Your task to perform on an android device: stop showing notifications on the lock screen Image 0: 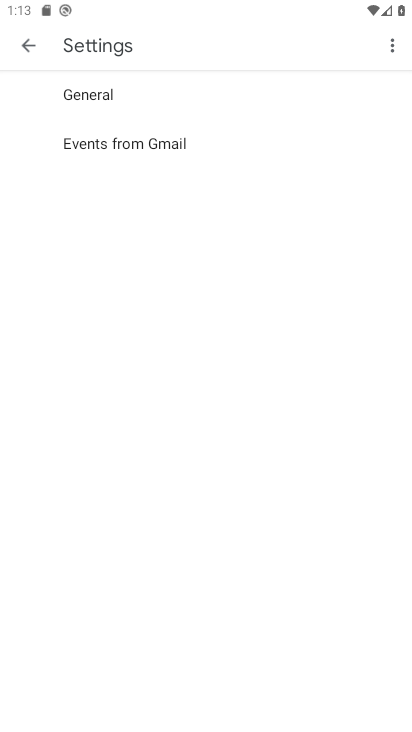
Step 0: press back button
Your task to perform on an android device: stop showing notifications on the lock screen Image 1: 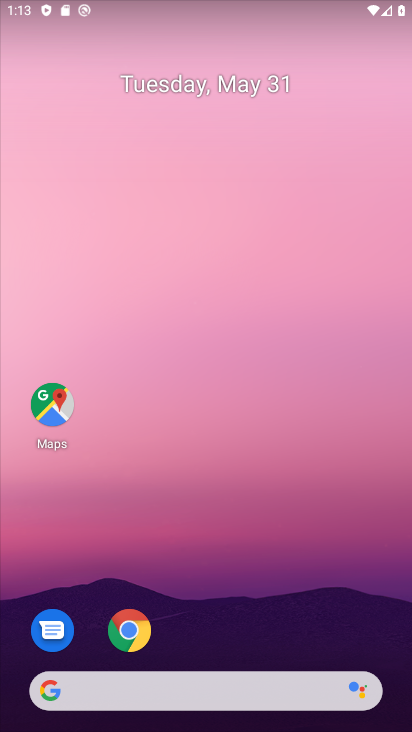
Step 1: drag from (261, 609) to (225, 25)
Your task to perform on an android device: stop showing notifications on the lock screen Image 2: 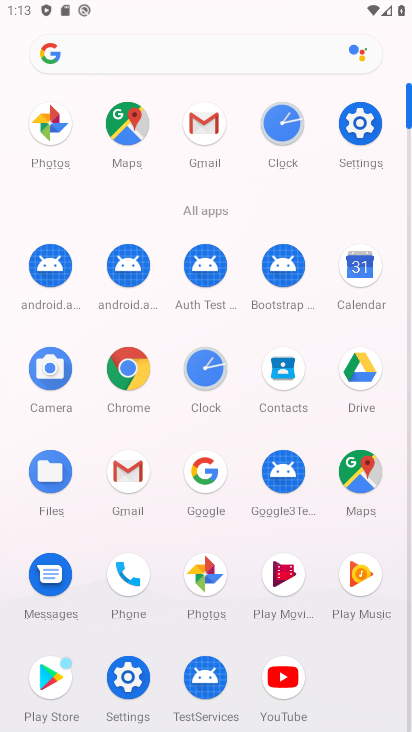
Step 2: drag from (15, 572) to (23, 212)
Your task to perform on an android device: stop showing notifications on the lock screen Image 3: 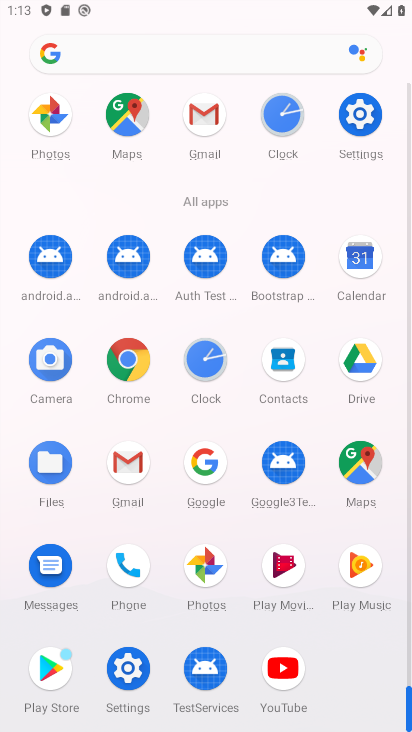
Step 3: click (125, 666)
Your task to perform on an android device: stop showing notifications on the lock screen Image 4: 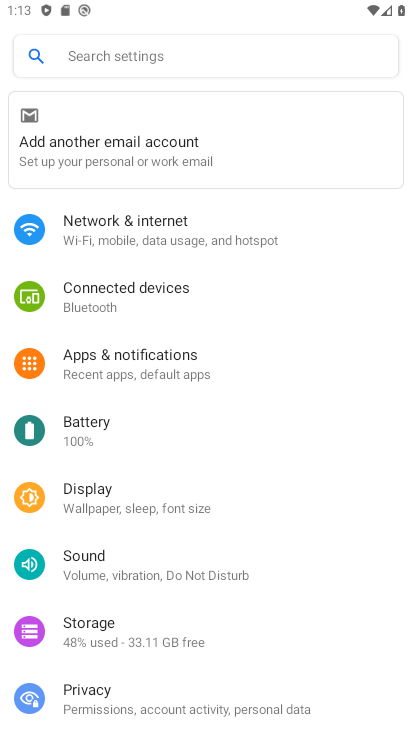
Step 4: drag from (280, 595) to (287, 193)
Your task to perform on an android device: stop showing notifications on the lock screen Image 5: 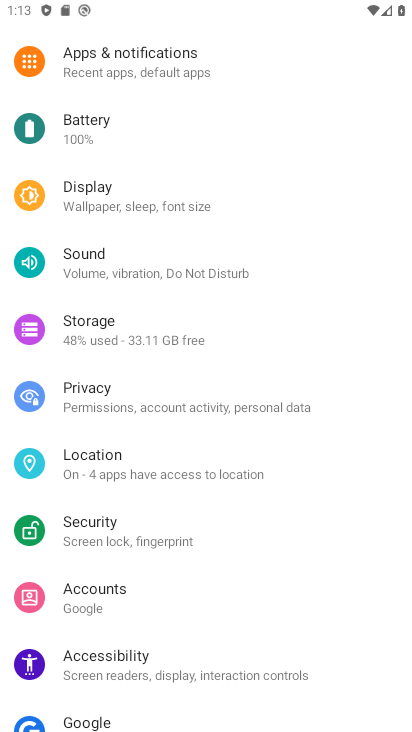
Step 5: drag from (310, 583) to (293, 118)
Your task to perform on an android device: stop showing notifications on the lock screen Image 6: 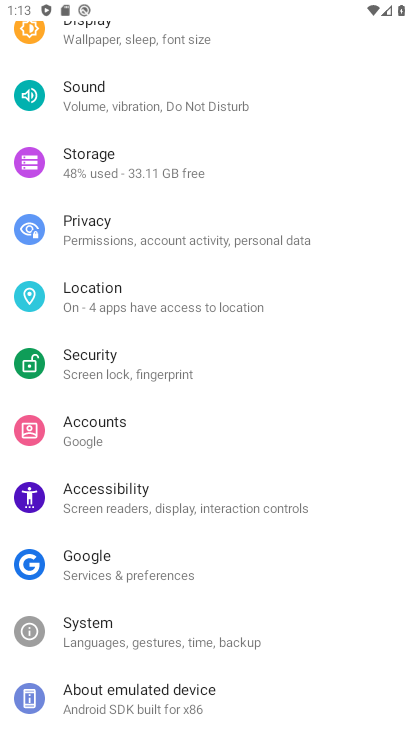
Step 6: drag from (260, 531) to (267, 133)
Your task to perform on an android device: stop showing notifications on the lock screen Image 7: 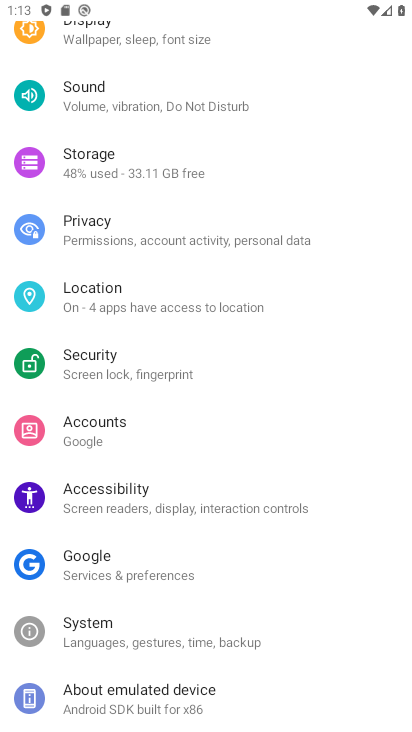
Step 7: drag from (266, 131) to (247, 566)
Your task to perform on an android device: stop showing notifications on the lock screen Image 8: 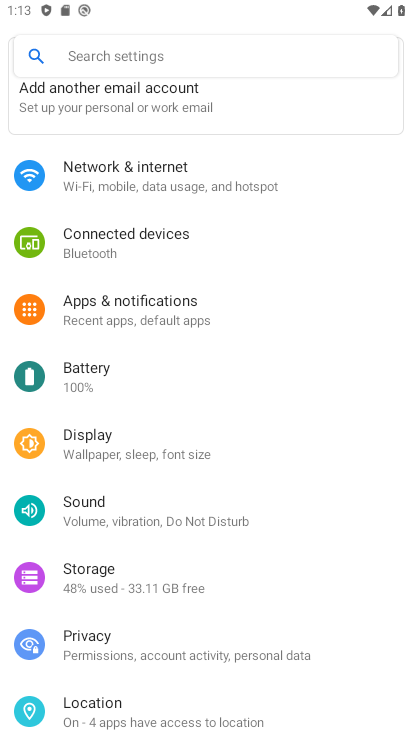
Step 8: click (161, 310)
Your task to perform on an android device: stop showing notifications on the lock screen Image 9: 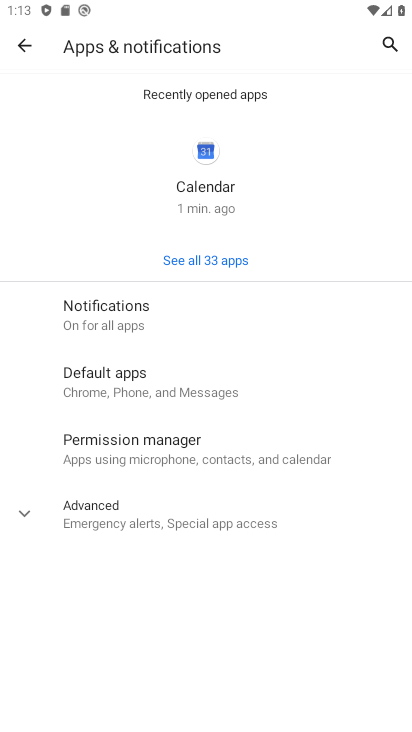
Step 9: click (30, 503)
Your task to perform on an android device: stop showing notifications on the lock screen Image 10: 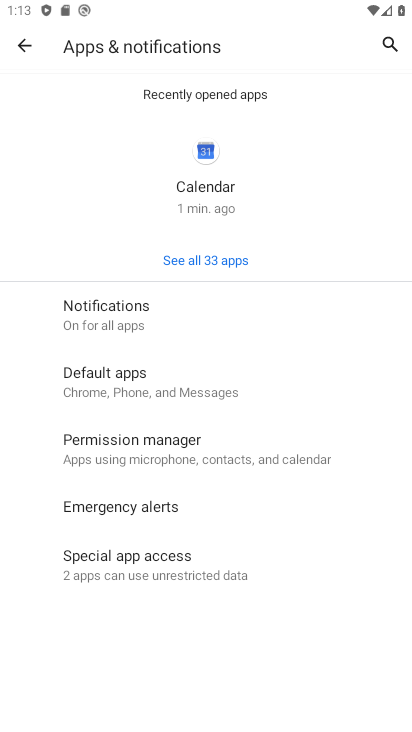
Step 10: click (131, 310)
Your task to perform on an android device: stop showing notifications on the lock screen Image 11: 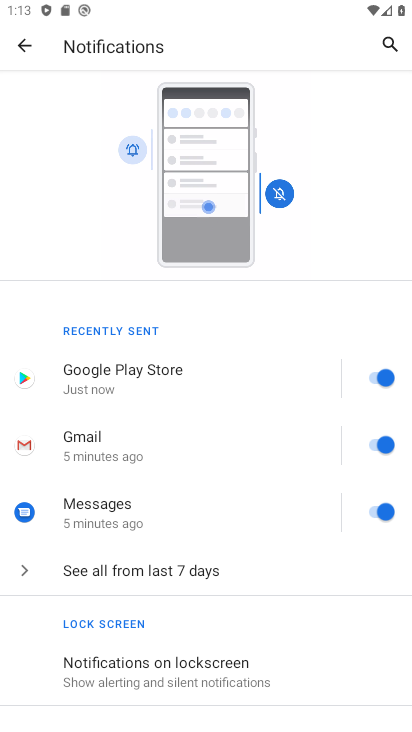
Step 11: drag from (243, 531) to (292, 126)
Your task to perform on an android device: stop showing notifications on the lock screen Image 12: 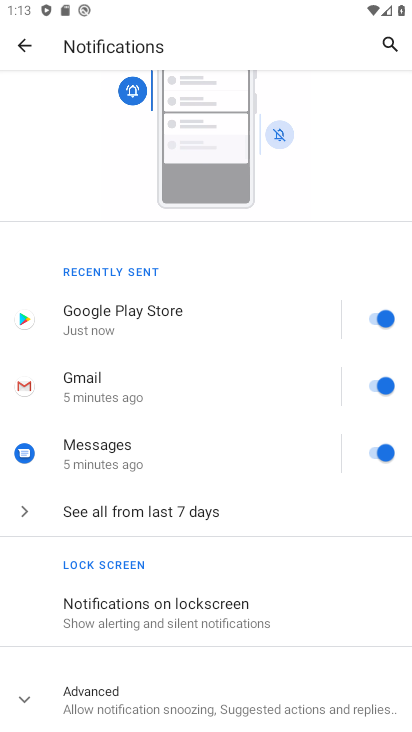
Step 12: click (33, 687)
Your task to perform on an android device: stop showing notifications on the lock screen Image 13: 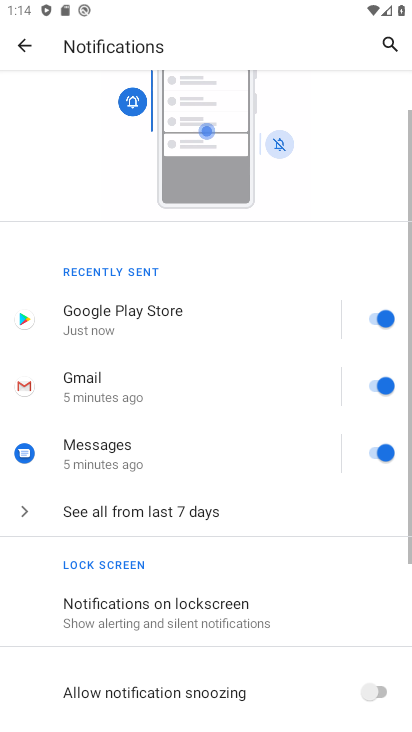
Step 13: drag from (271, 633) to (255, 225)
Your task to perform on an android device: stop showing notifications on the lock screen Image 14: 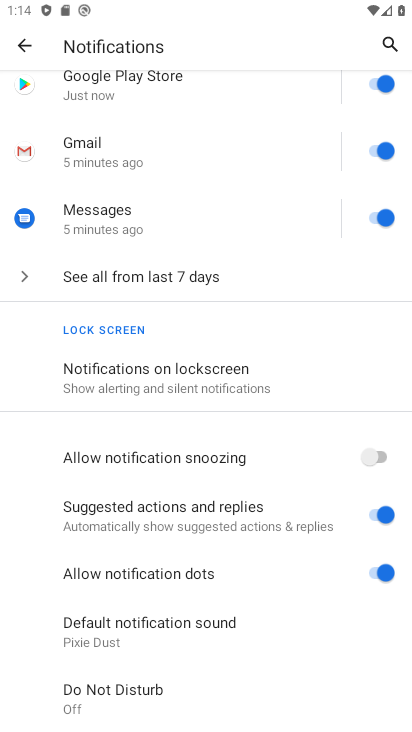
Step 14: click (188, 377)
Your task to perform on an android device: stop showing notifications on the lock screen Image 15: 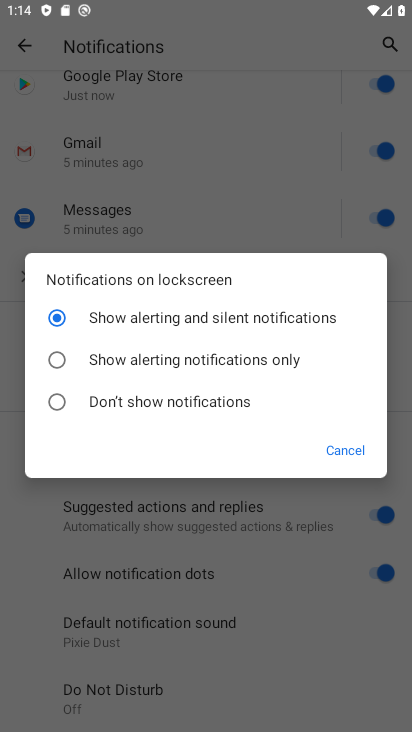
Step 15: click (154, 396)
Your task to perform on an android device: stop showing notifications on the lock screen Image 16: 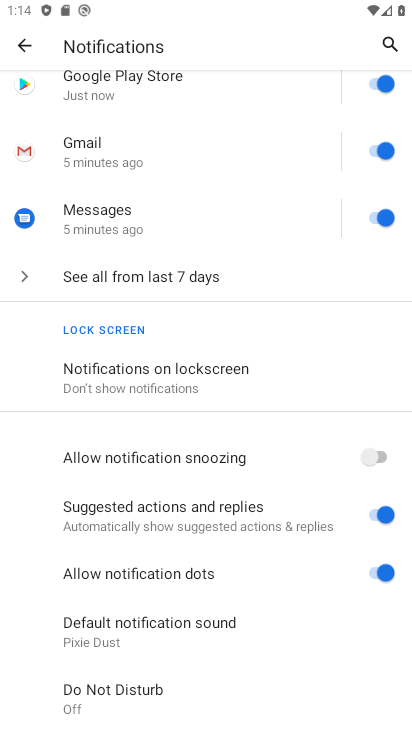
Step 16: task complete